Your task to perform on an android device: see sites visited before in the chrome app Image 0: 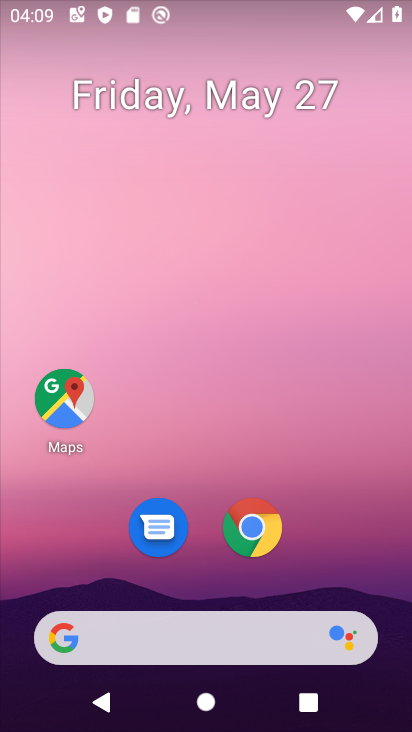
Step 0: click (255, 525)
Your task to perform on an android device: see sites visited before in the chrome app Image 1: 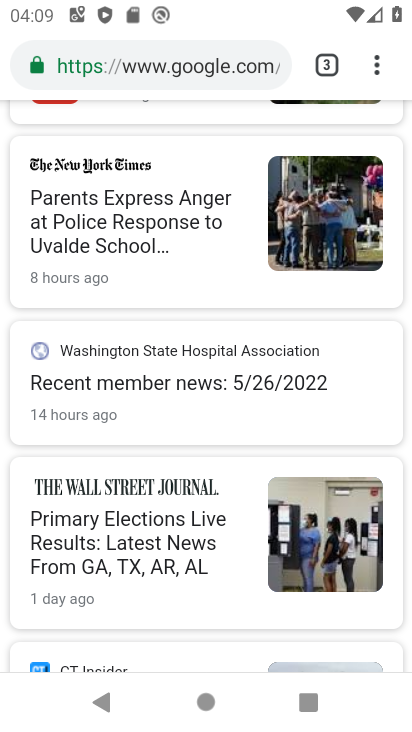
Step 1: drag from (372, 69) to (124, 369)
Your task to perform on an android device: see sites visited before in the chrome app Image 2: 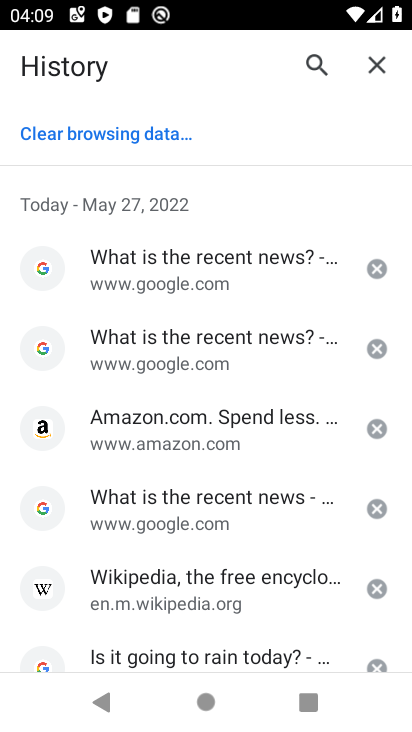
Step 2: click (156, 252)
Your task to perform on an android device: see sites visited before in the chrome app Image 3: 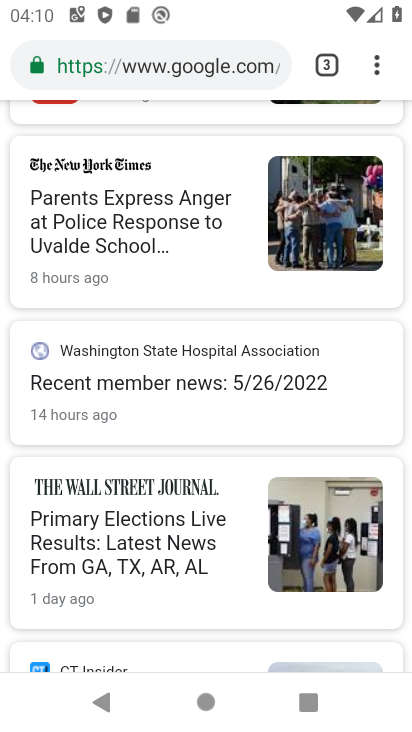
Step 3: task complete